Your task to perform on an android device: Check the weather Image 0: 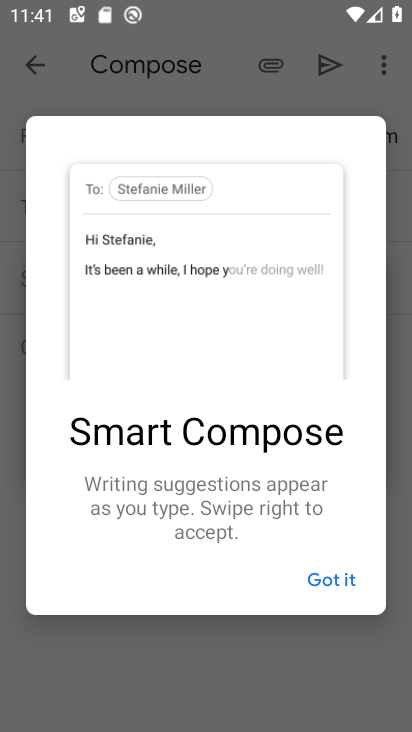
Step 0: press home button
Your task to perform on an android device: Check the weather Image 1: 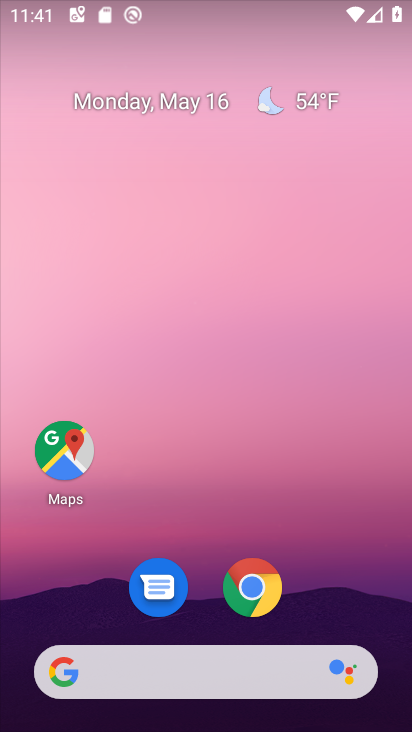
Step 1: click (296, 98)
Your task to perform on an android device: Check the weather Image 2: 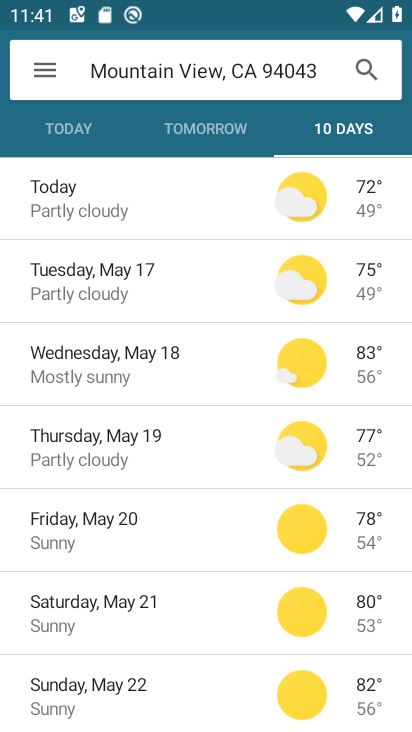
Step 2: task complete